Your task to perform on an android device: set the timer Image 0: 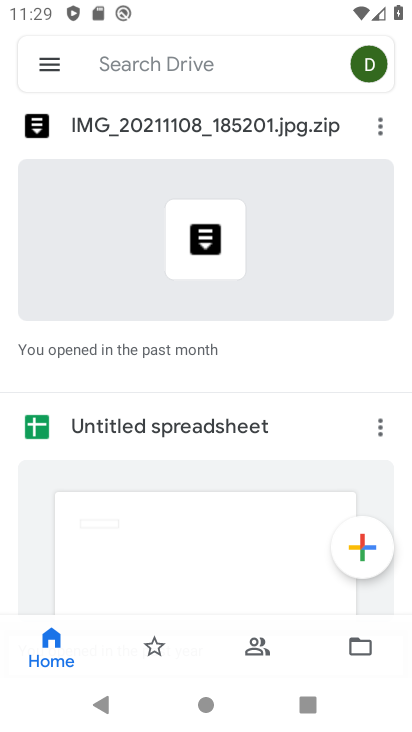
Step 0: press back button
Your task to perform on an android device: set the timer Image 1: 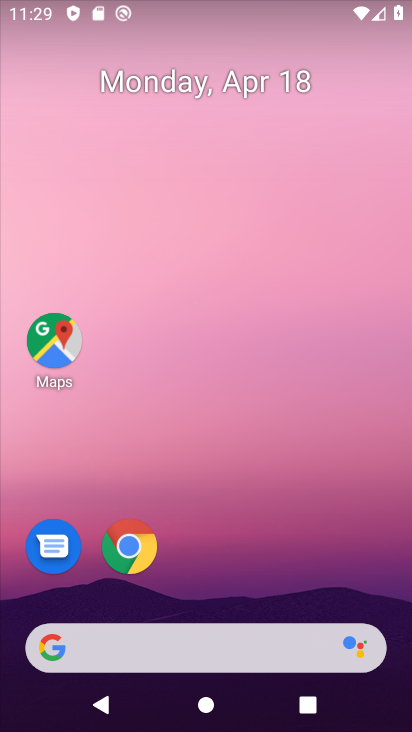
Step 1: drag from (291, 543) to (266, 127)
Your task to perform on an android device: set the timer Image 2: 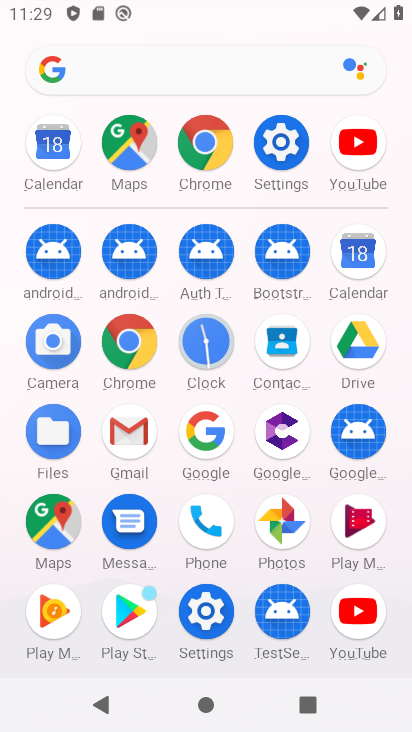
Step 2: click (218, 353)
Your task to perform on an android device: set the timer Image 3: 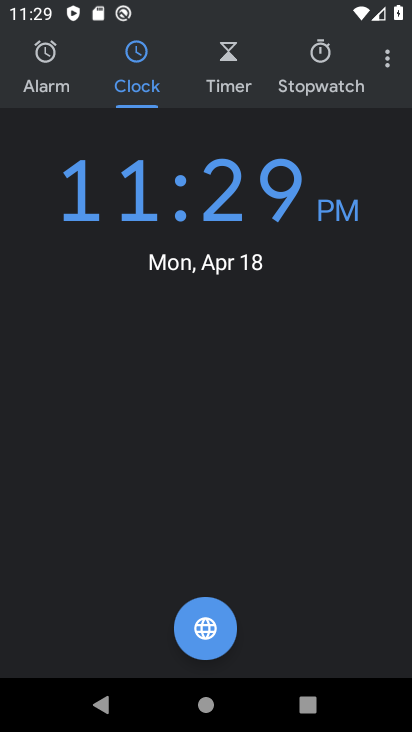
Step 3: click (255, 83)
Your task to perform on an android device: set the timer Image 4: 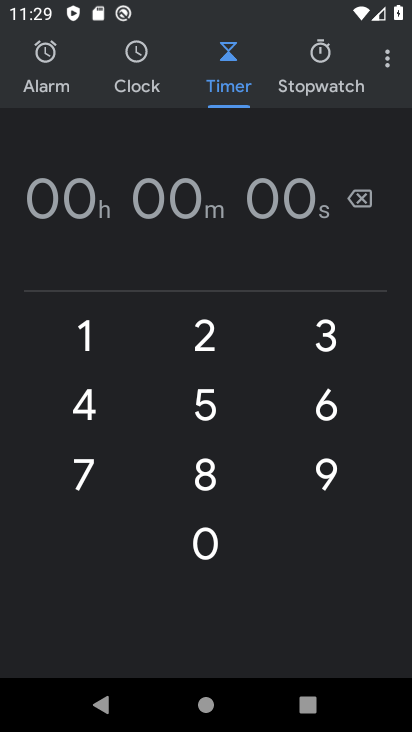
Step 4: task complete